Your task to perform on an android device: toggle wifi Image 0: 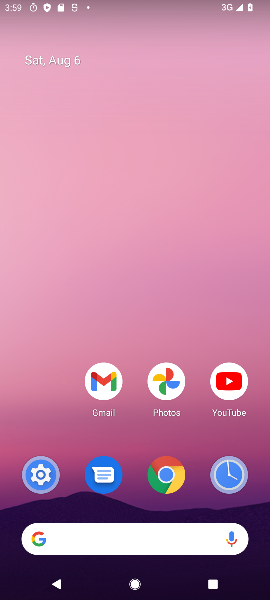
Step 0: click (46, 468)
Your task to perform on an android device: toggle wifi Image 1: 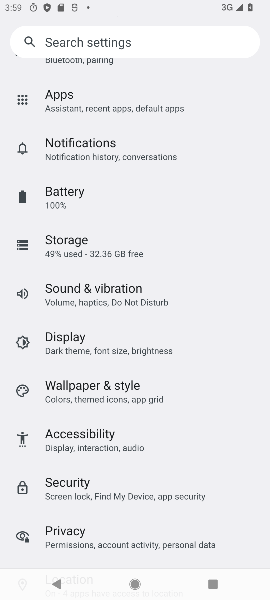
Step 1: drag from (208, 91) to (194, 360)
Your task to perform on an android device: toggle wifi Image 2: 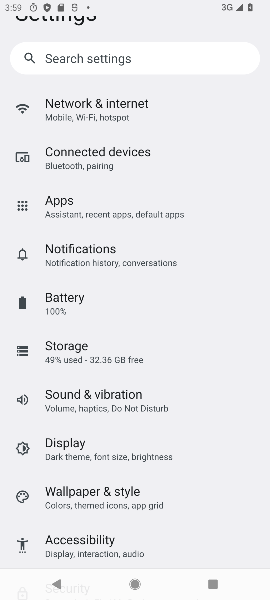
Step 2: click (108, 103)
Your task to perform on an android device: toggle wifi Image 3: 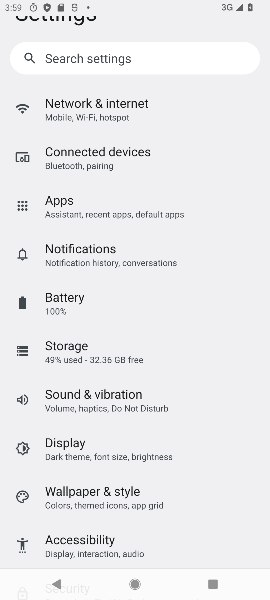
Step 3: click (108, 103)
Your task to perform on an android device: toggle wifi Image 4: 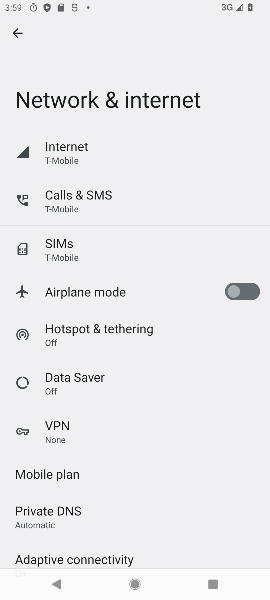
Step 4: click (78, 160)
Your task to perform on an android device: toggle wifi Image 5: 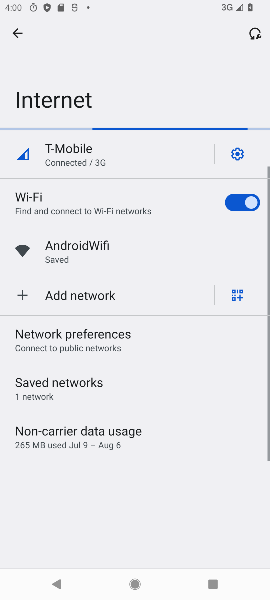
Step 5: task complete